Your task to perform on an android device: delete location history Image 0: 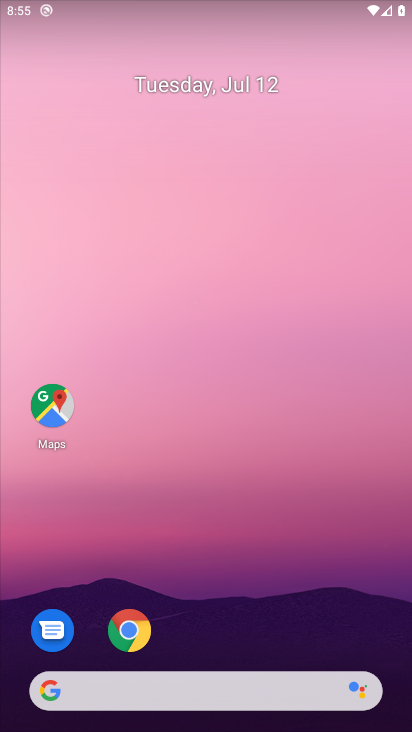
Step 0: press home button
Your task to perform on an android device: delete location history Image 1: 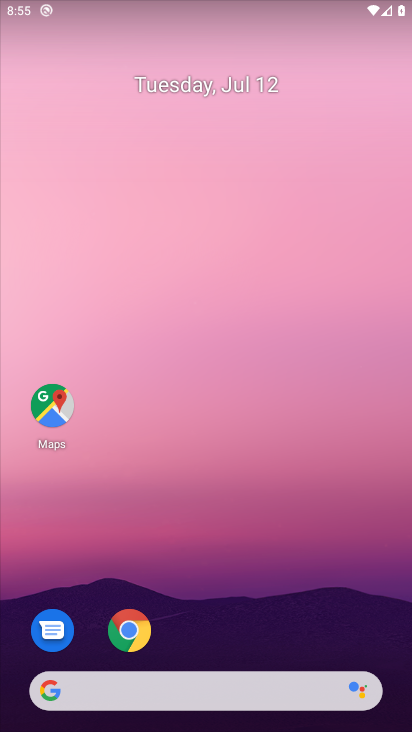
Step 1: drag from (221, 641) to (163, 129)
Your task to perform on an android device: delete location history Image 2: 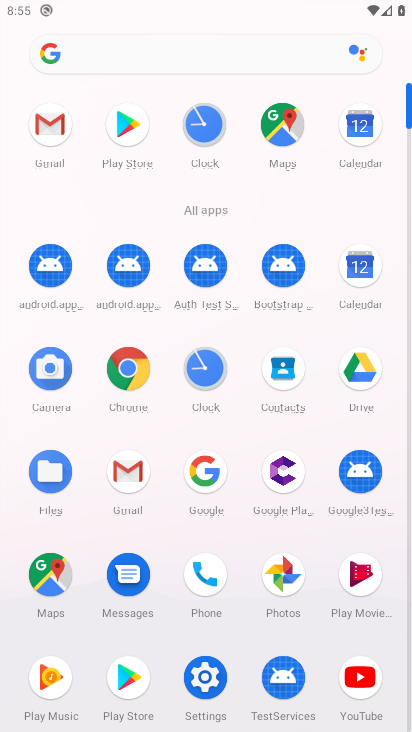
Step 2: click (286, 130)
Your task to perform on an android device: delete location history Image 3: 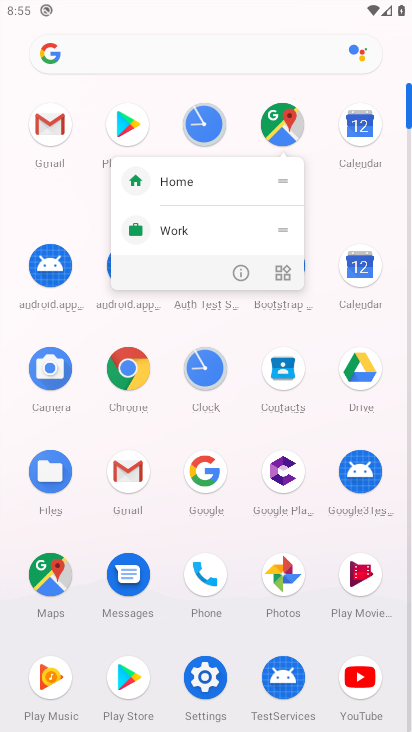
Step 3: click (278, 132)
Your task to perform on an android device: delete location history Image 4: 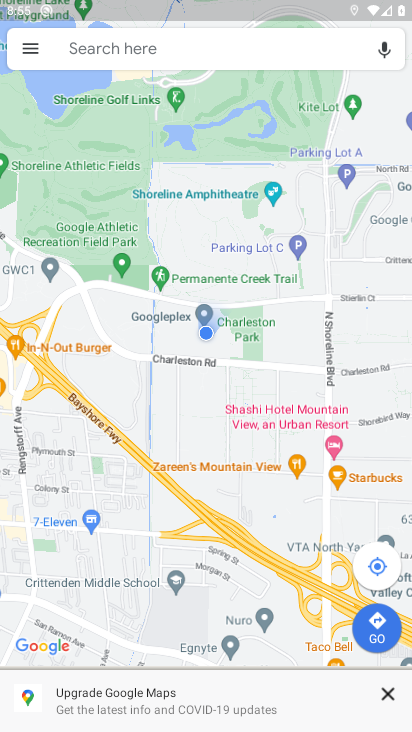
Step 4: click (32, 51)
Your task to perform on an android device: delete location history Image 5: 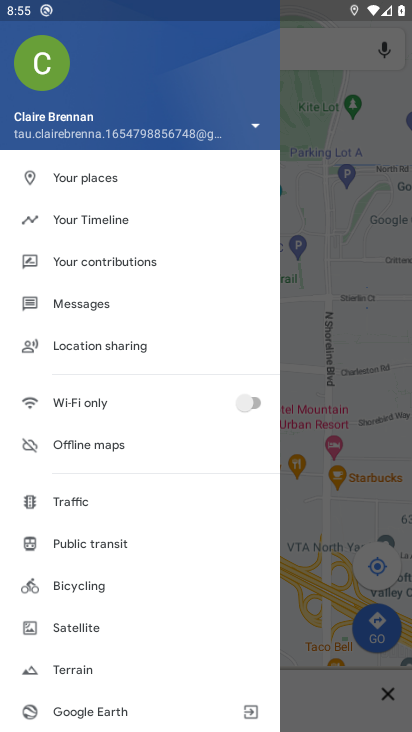
Step 5: click (97, 216)
Your task to perform on an android device: delete location history Image 6: 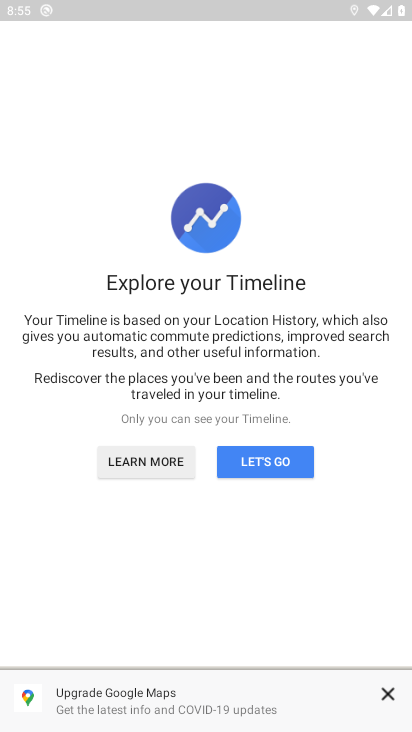
Step 6: click (253, 471)
Your task to perform on an android device: delete location history Image 7: 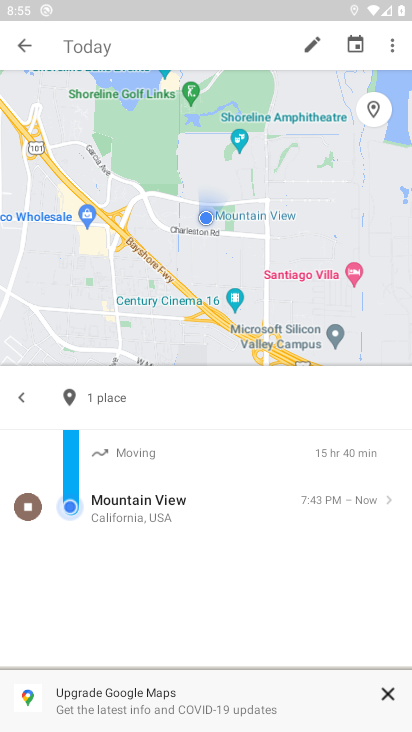
Step 7: click (392, 37)
Your task to perform on an android device: delete location history Image 8: 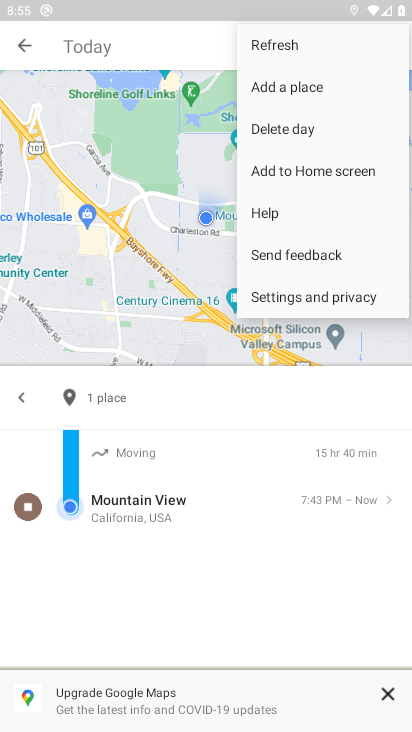
Step 8: click (308, 299)
Your task to perform on an android device: delete location history Image 9: 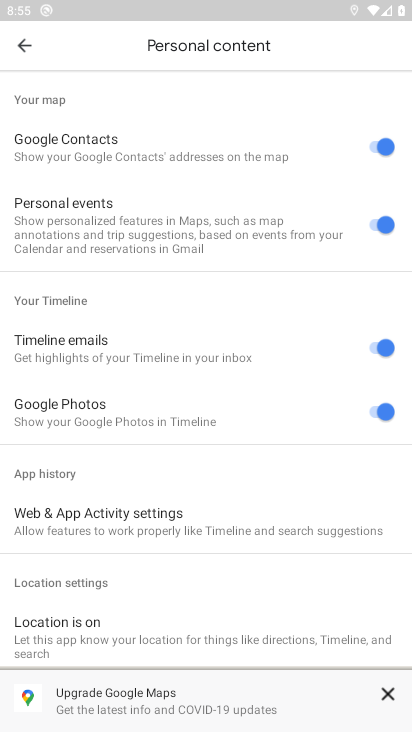
Step 9: drag from (267, 587) to (207, 171)
Your task to perform on an android device: delete location history Image 10: 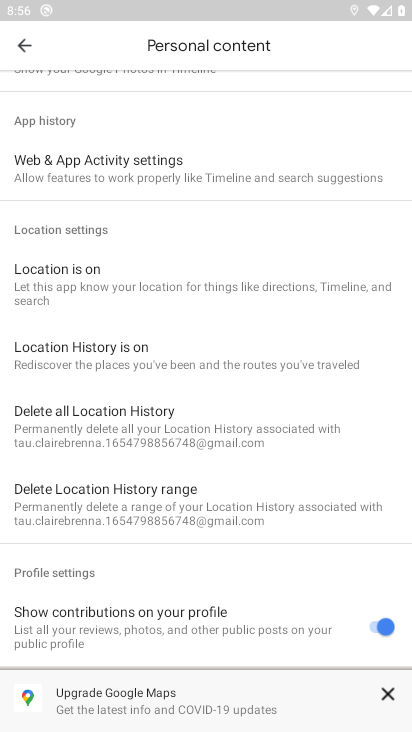
Step 10: drag from (231, 585) to (207, 219)
Your task to perform on an android device: delete location history Image 11: 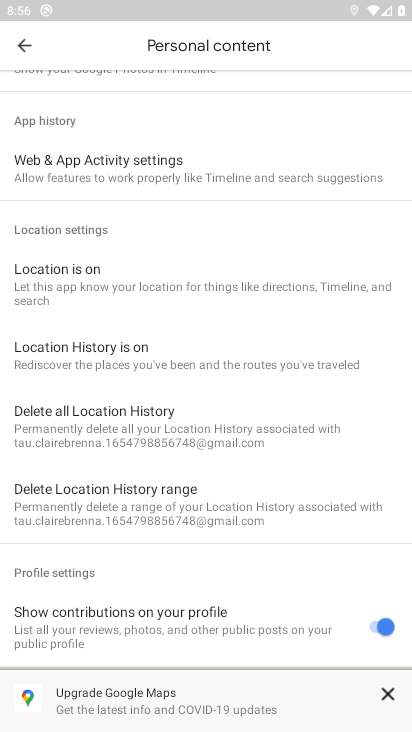
Step 11: click (82, 415)
Your task to perform on an android device: delete location history Image 12: 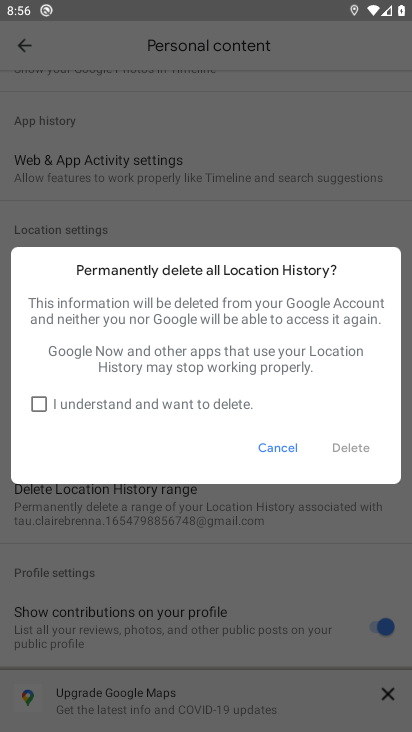
Step 12: click (31, 406)
Your task to perform on an android device: delete location history Image 13: 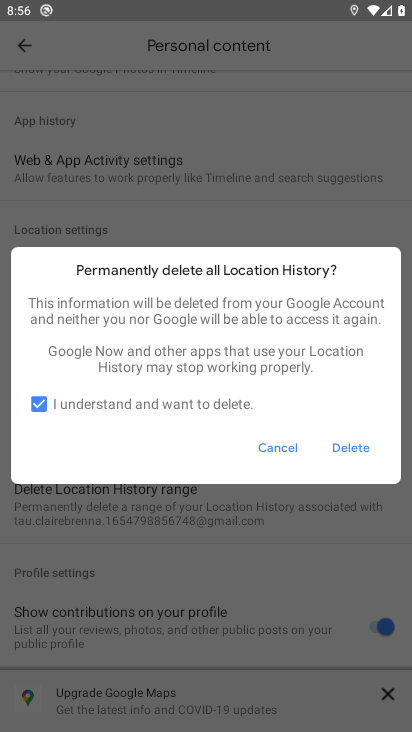
Step 13: click (345, 445)
Your task to perform on an android device: delete location history Image 14: 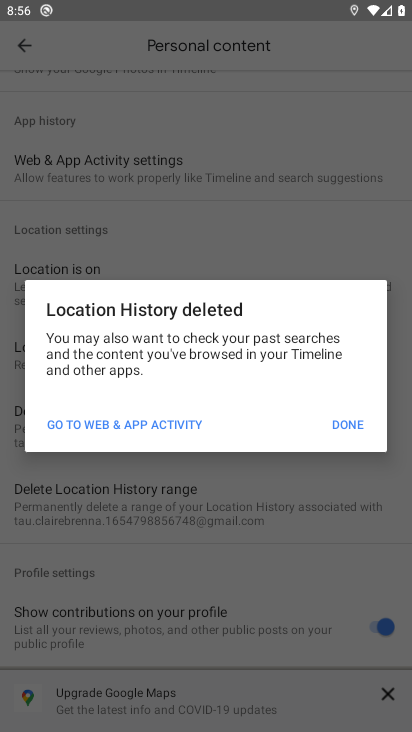
Step 14: click (342, 422)
Your task to perform on an android device: delete location history Image 15: 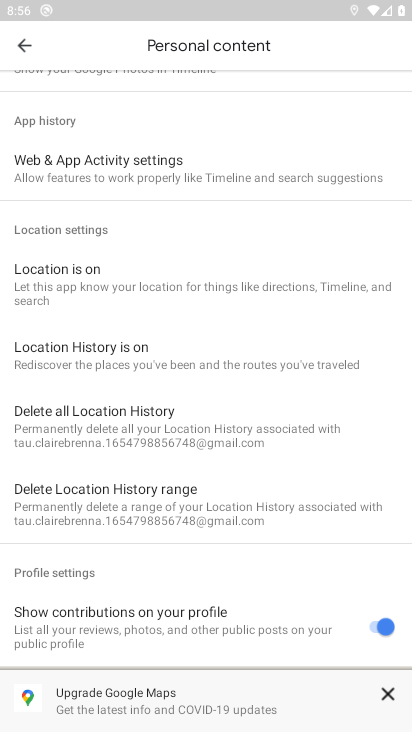
Step 15: task complete